Your task to perform on an android device: Open Google Chrome and open the bookmarks view Image 0: 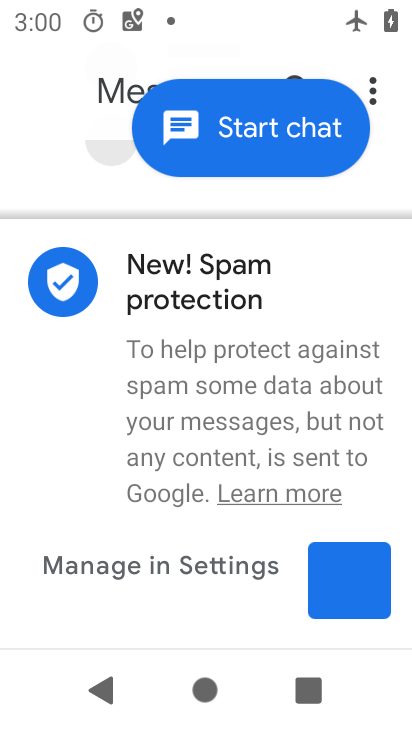
Step 0: press home button
Your task to perform on an android device: Open Google Chrome and open the bookmarks view Image 1: 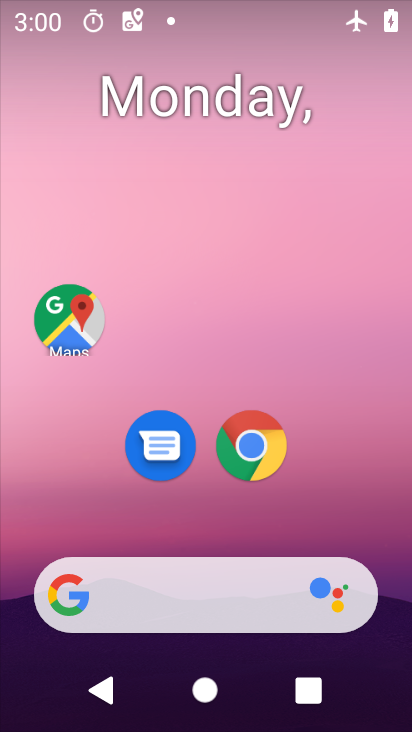
Step 1: click (249, 483)
Your task to perform on an android device: Open Google Chrome and open the bookmarks view Image 2: 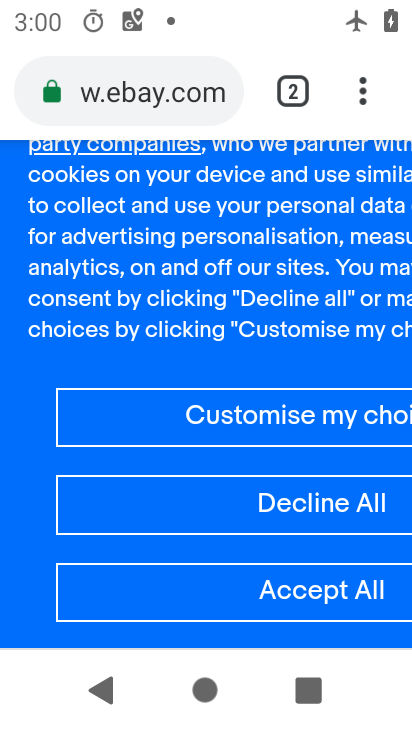
Step 2: drag from (365, 87) to (166, 343)
Your task to perform on an android device: Open Google Chrome and open the bookmarks view Image 3: 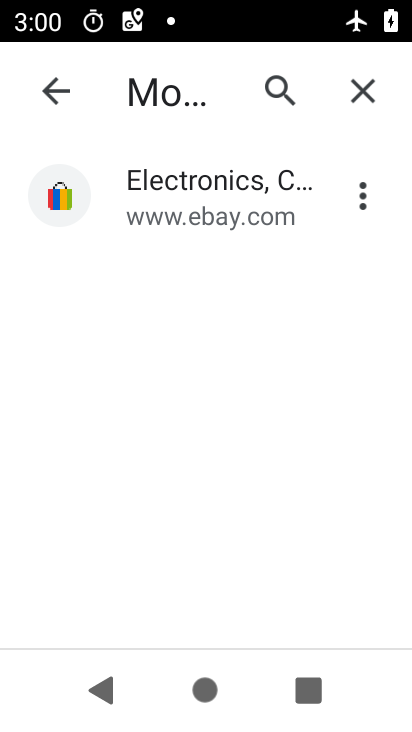
Step 3: click (230, 205)
Your task to perform on an android device: Open Google Chrome and open the bookmarks view Image 4: 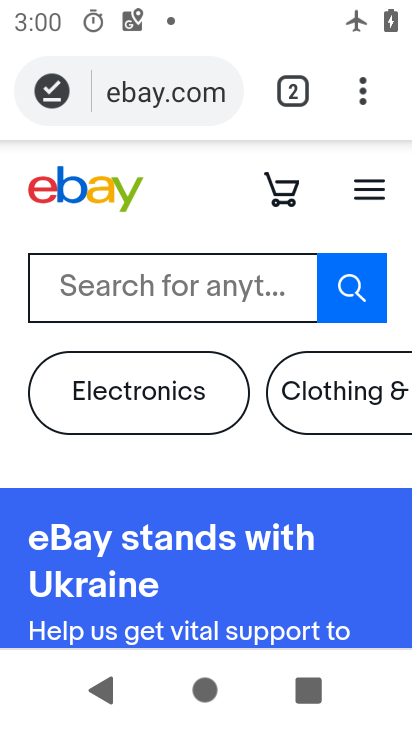
Step 4: task complete